Your task to perform on an android device: change the clock display to digital Image 0: 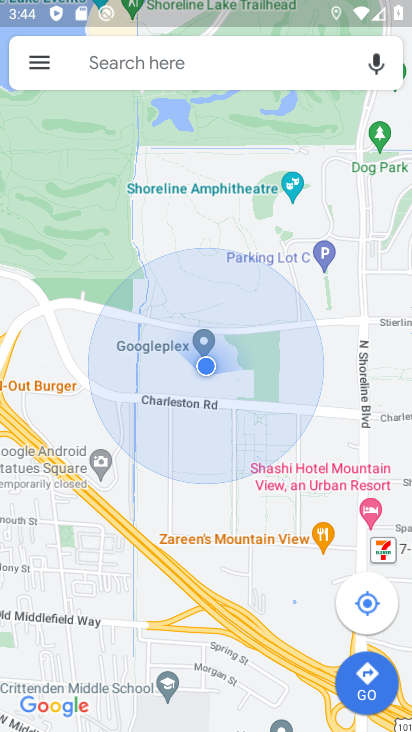
Step 0: press home button
Your task to perform on an android device: change the clock display to digital Image 1: 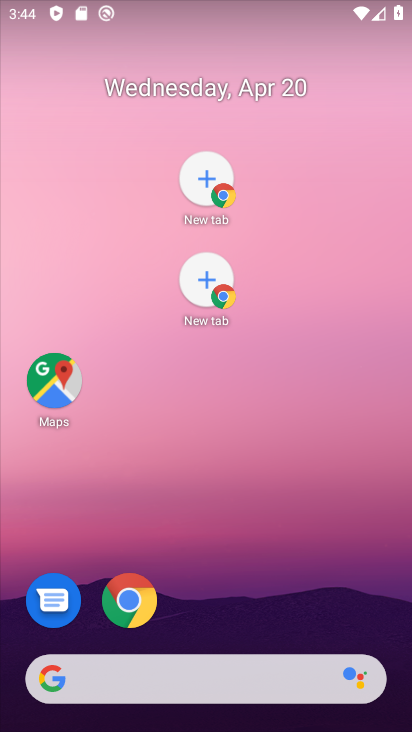
Step 1: drag from (235, 697) to (142, 261)
Your task to perform on an android device: change the clock display to digital Image 2: 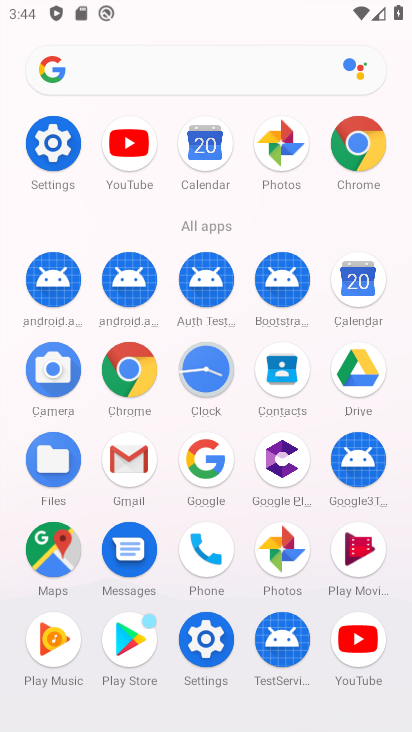
Step 2: click (201, 358)
Your task to perform on an android device: change the clock display to digital Image 3: 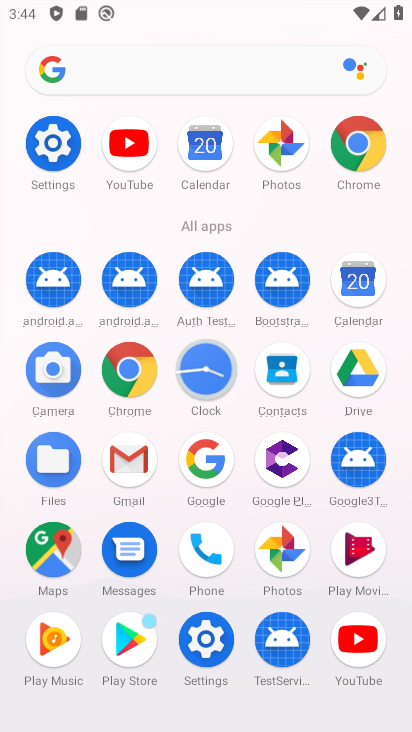
Step 3: click (201, 358)
Your task to perform on an android device: change the clock display to digital Image 4: 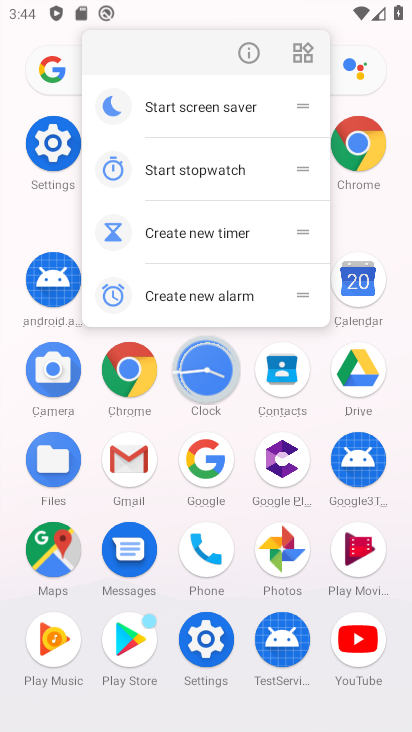
Step 4: click (201, 358)
Your task to perform on an android device: change the clock display to digital Image 5: 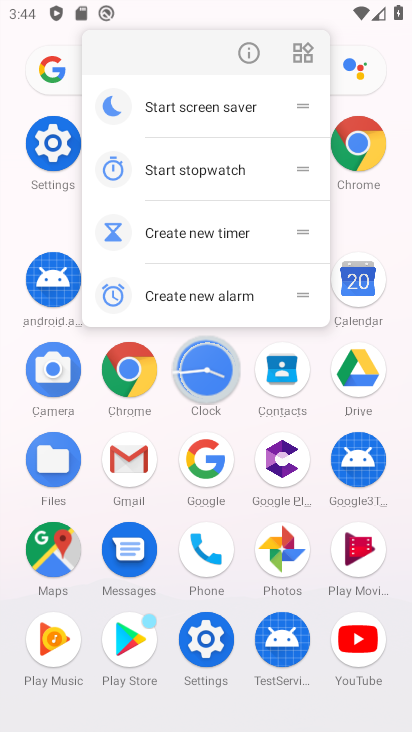
Step 5: click (204, 368)
Your task to perform on an android device: change the clock display to digital Image 6: 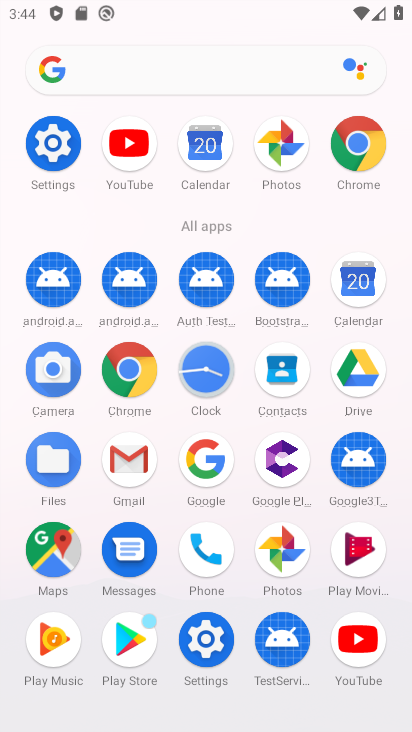
Step 6: click (204, 368)
Your task to perform on an android device: change the clock display to digital Image 7: 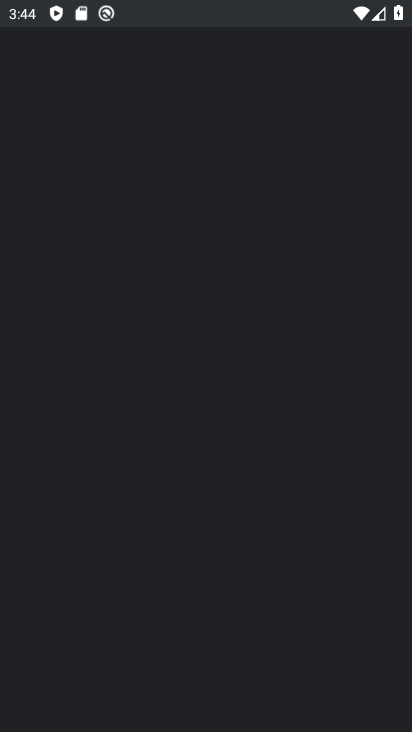
Step 7: click (204, 368)
Your task to perform on an android device: change the clock display to digital Image 8: 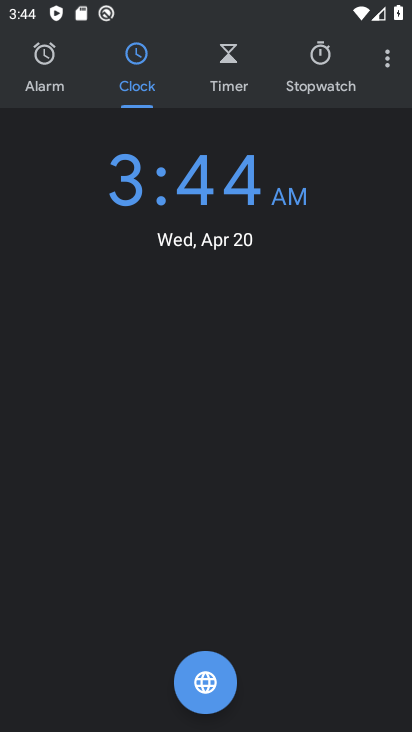
Step 8: click (381, 55)
Your task to perform on an android device: change the clock display to digital Image 9: 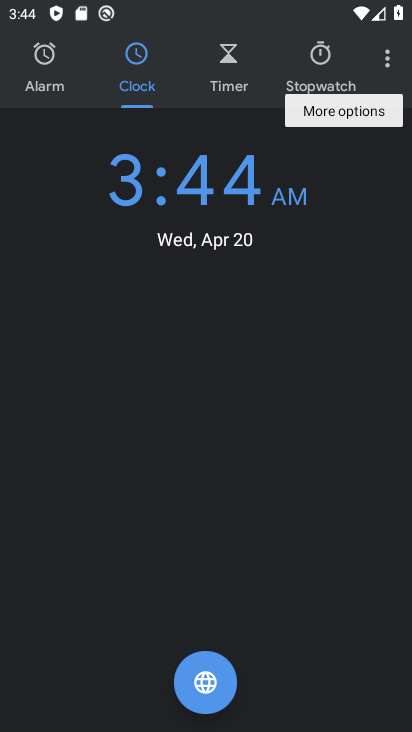
Step 9: click (381, 55)
Your task to perform on an android device: change the clock display to digital Image 10: 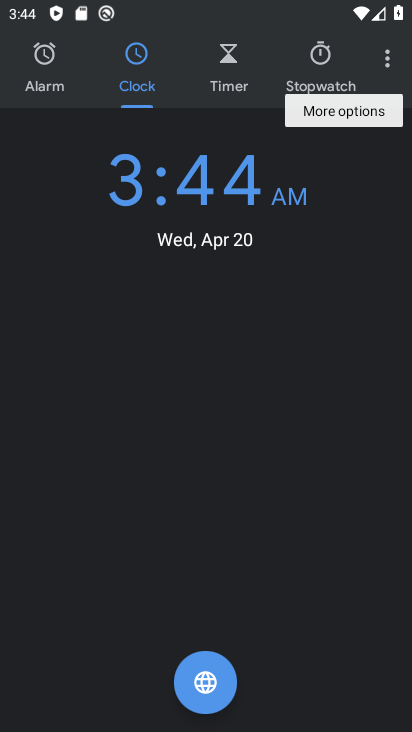
Step 10: click (381, 55)
Your task to perform on an android device: change the clock display to digital Image 11: 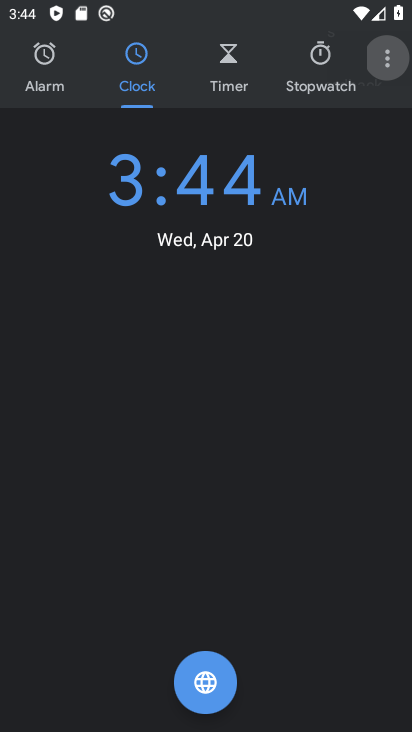
Step 11: click (381, 55)
Your task to perform on an android device: change the clock display to digital Image 12: 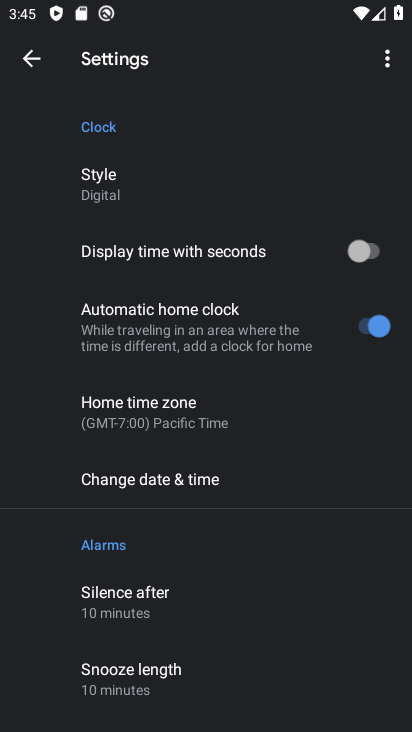
Step 12: click (157, 485)
Your task to perform on an android device: change the clock display to digital Image 13: 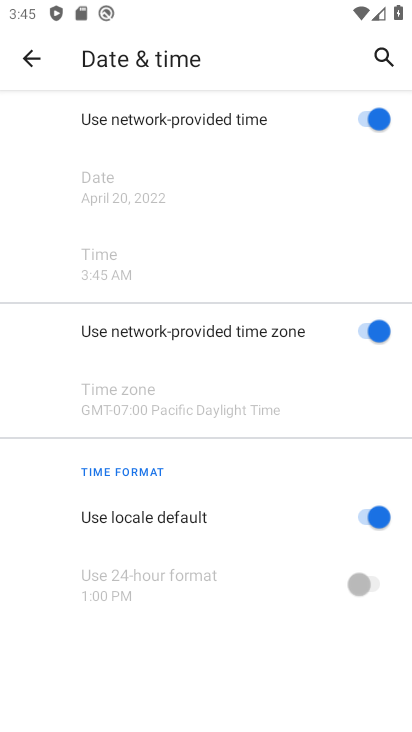
Step 13: click (25, 50)
Your task to perform on an android device: change the clock display to digital Image 14: 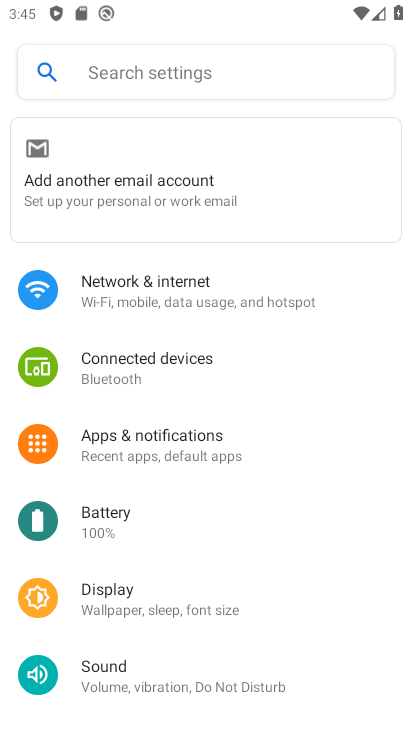
Step 14: press home button
Your task to perform on an android device: change the clock display to digital Image 15: 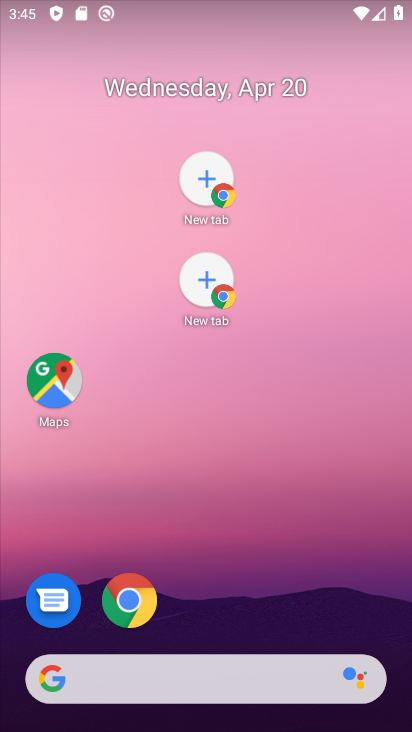
Step 15: drag from (218, 621) to (97, 74)
Your task to perform on an android device: change the clock display to digital Image 16: 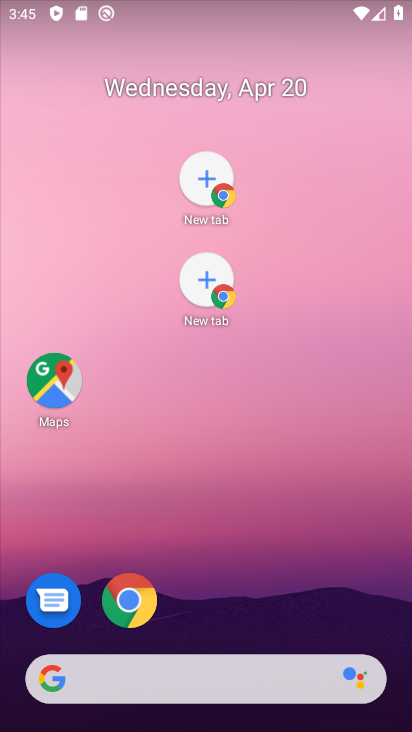
Step 16: drag from (287, 504) to (142, 92)
Your task to perform on an android device: change the clock display to digital Image 17: 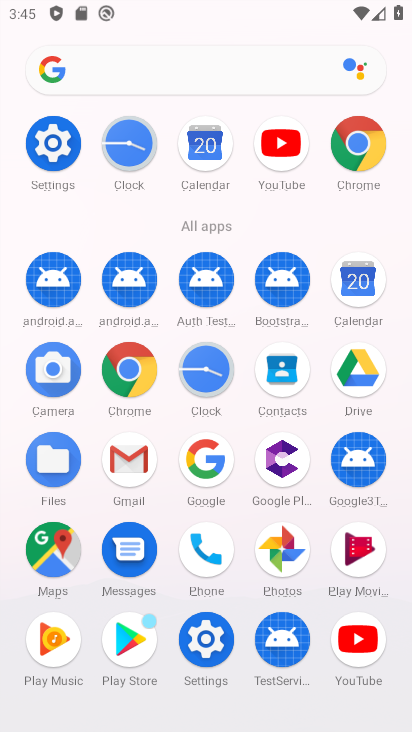
Step 17: drag from (221, 411) to (221, 146)
Your task to perform on an android device: change the clock display to digital Image 18: 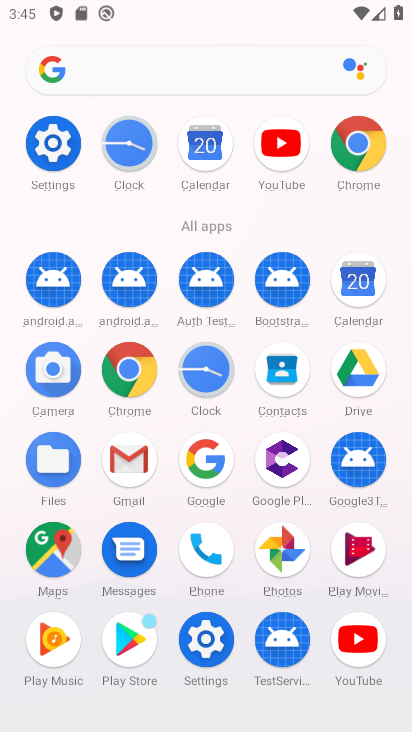
Step 18: click (353, 141)
Your task to perform on an android device: change the clock display to digital Image 19: 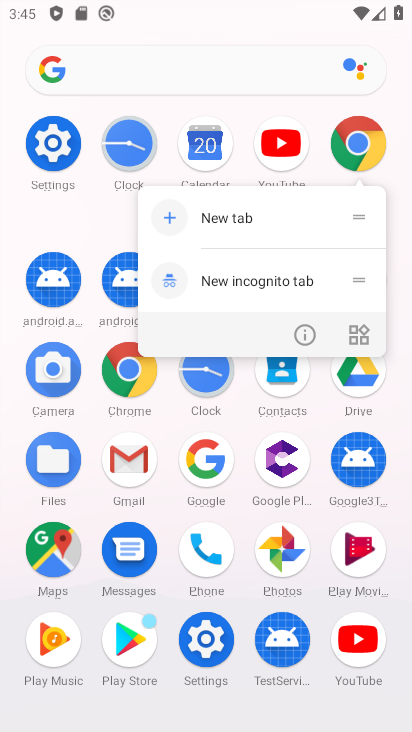
Step 19: click (230, 219)
Your task to perform on an android device: change the clock display to digital Image 20: 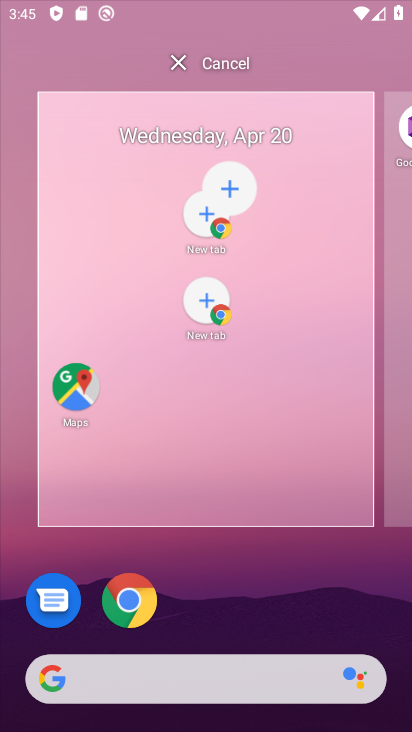
Step 20: click (230, 219)
Your task to perform on an android device: change the clock display to digital Image 21: 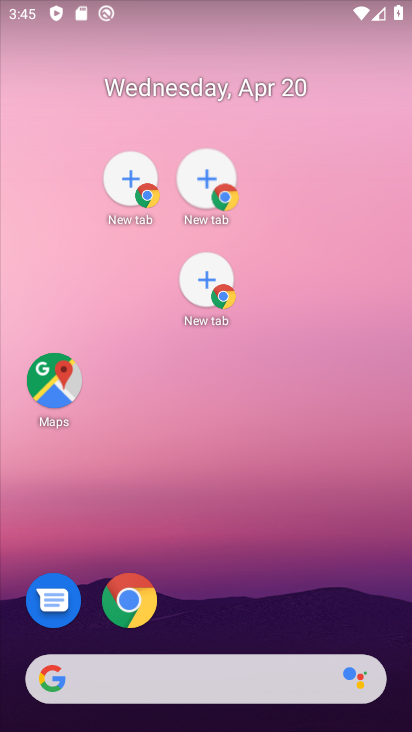
Step 21: drag from (294, 613) to (190, 175)
Your task to perform on an android device: change the clock display to digital Image 22: 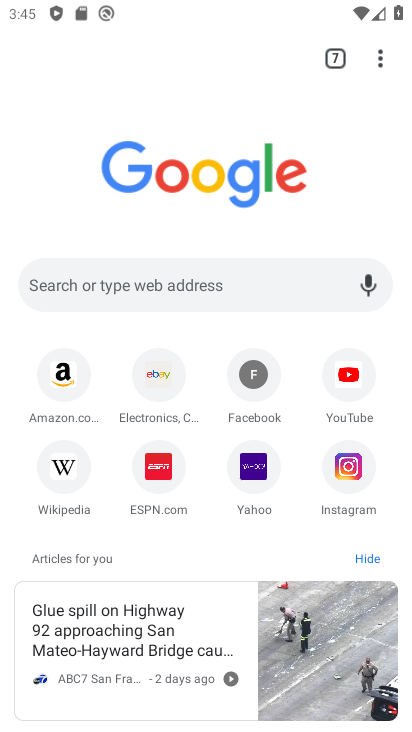
Step 22: drag from (375, 55) to (135, 718)
Your task to perform on an android device: change the clock display to digital Image 23: 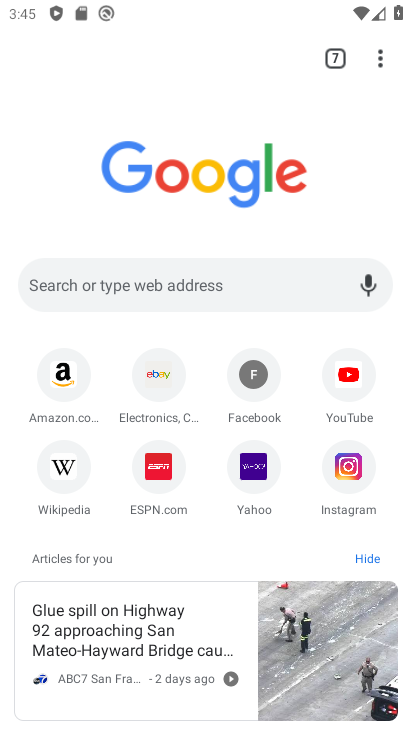
Step 23: press home button
Your task to perform on an android device: change the clock display to digital Image 24: 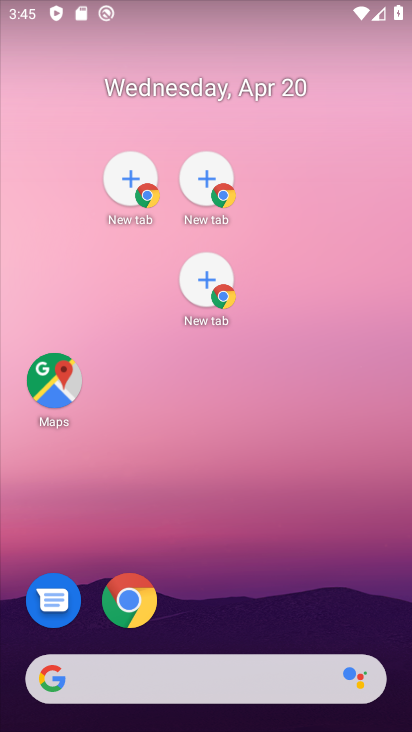
Step 24: drag from (268, 687) to (158, 227)
Your task to perform on an android device: change the clock display to digital Image 25: 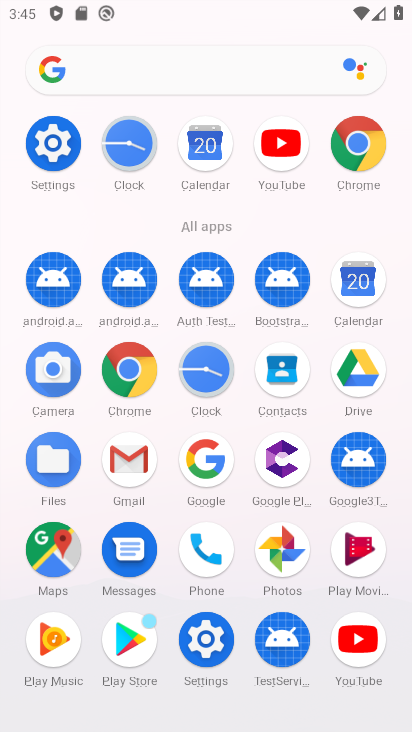
Step 25: click (215, 369)
Your task to perform on an android device: change the clock display to digital Image 26: 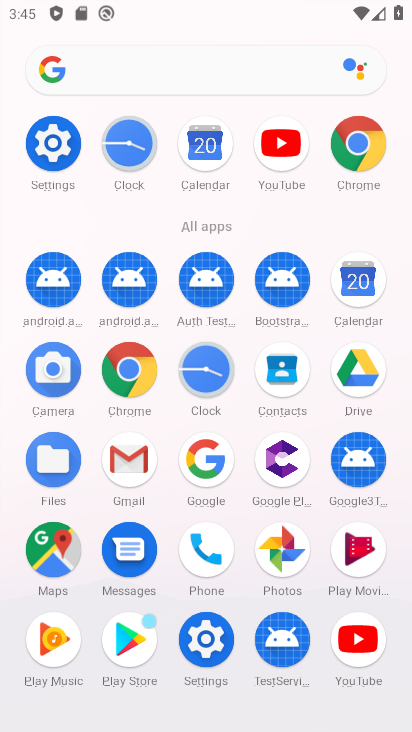
Step 26: click (215, 368)
Your task to perform on an android device: change the clock display to digital Image 27: 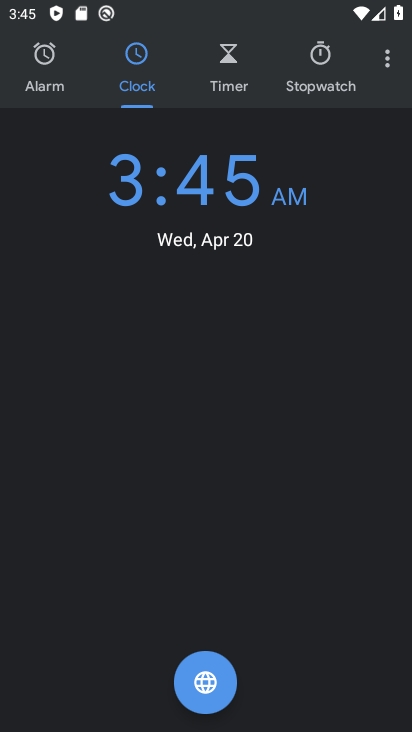
Step 27: click (377, 63)
Your task to perform on an android device: change the clock display to digital Image 28: 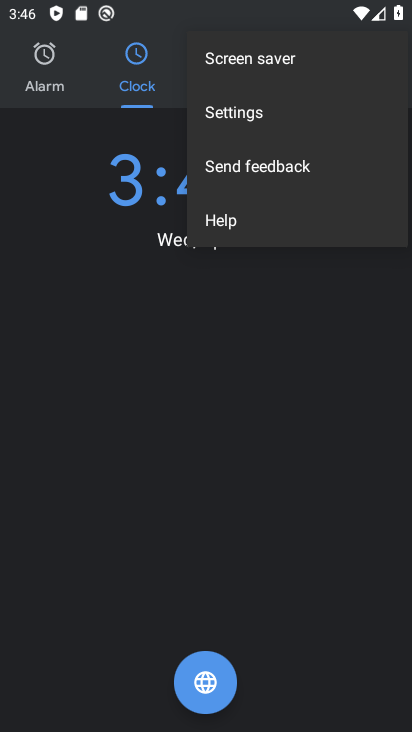
Step 28: click (228, 113)
Your task to perform on an android device: change the clock display to digital Image 29: 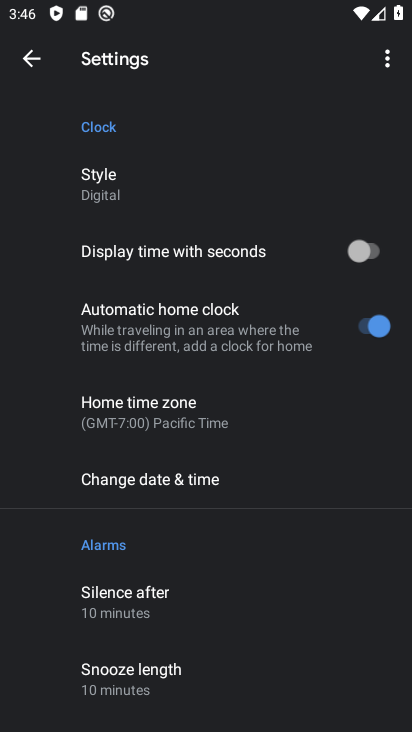
Step 29: click (131, 185)
Your task to perform on an android device: change the clock display to digital Image 30: 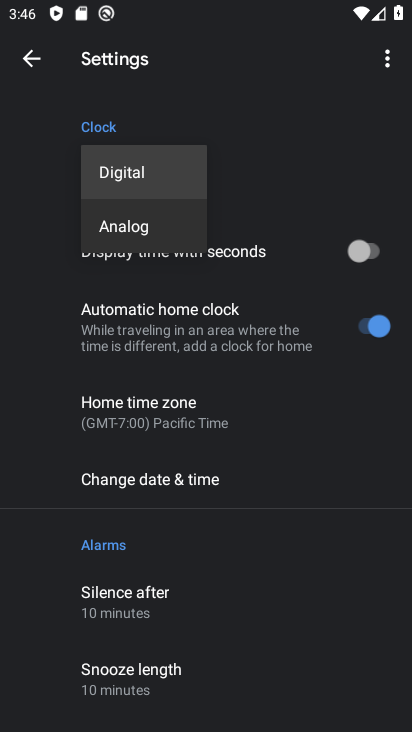
Step 30: click (247, 184)
Your task to perform on an android device: change the clock display to digital Image 31: 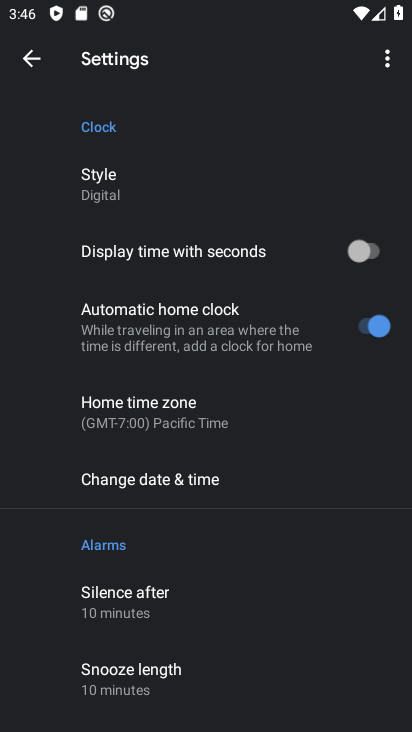
Step 31: task complete